Your task to perform on an android device: open wifi settings Image 0: 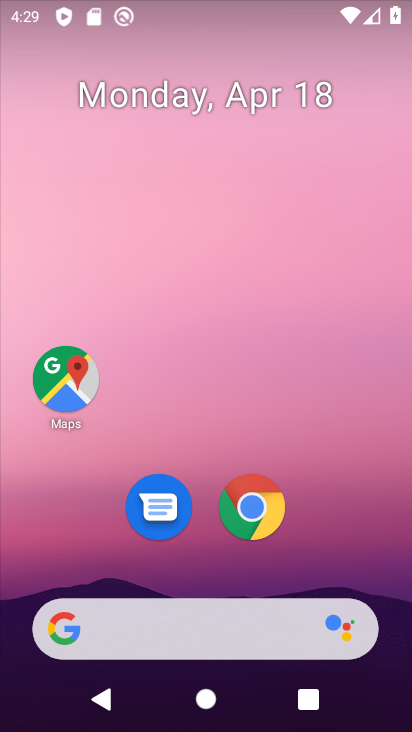
Step 0: drag from (336, 546) to (348, 7)
Your task to perform on an android device: open wifi settings Image 1: 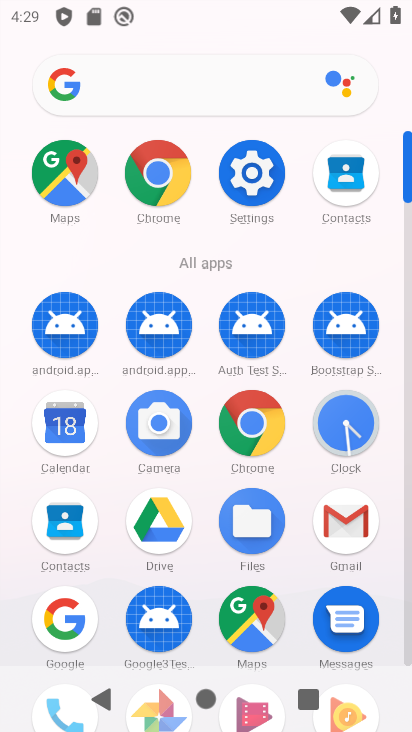
Step 1: click (263, 163)
Your task to perform on an android device: open wifi settings Image 2: 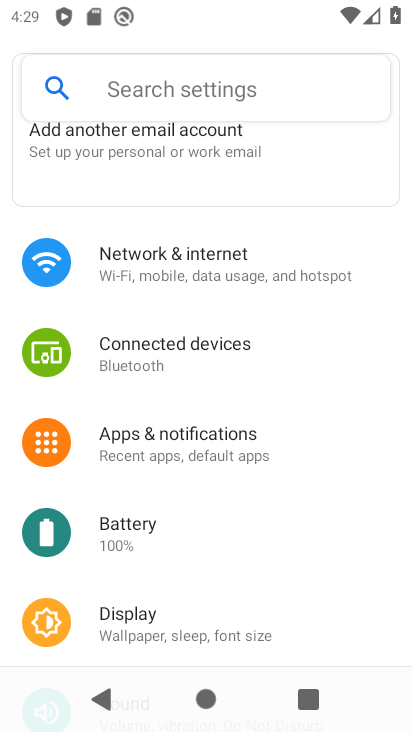
Step 2: click (210, 272)
Your task to perform on an android device: open wifi settings Image 3: 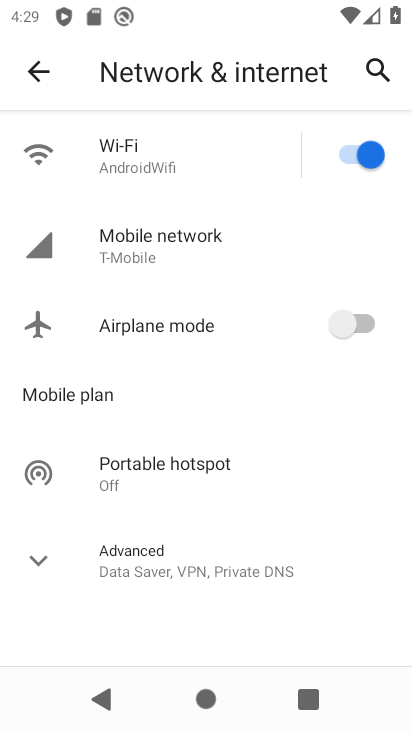
Step 3: drag from (144, 627) to (160, 206)
Your task to perform on an android device: open wifi settings Image 4: 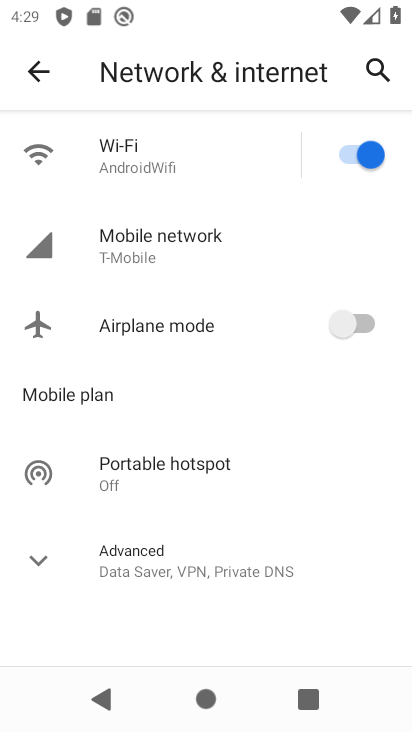
Step 4: click (180, 172)
Your task to perform on an android device: open wifi settings Image 5: 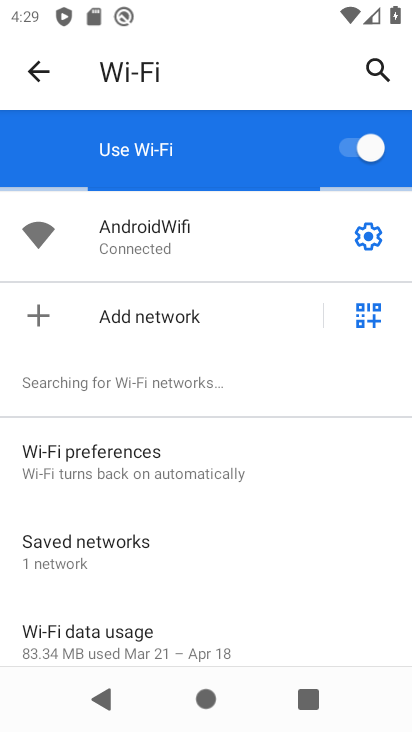
Step 5: task complete